Your task to perform on an android device: Open calendar and show me the first week of next month Image 0: 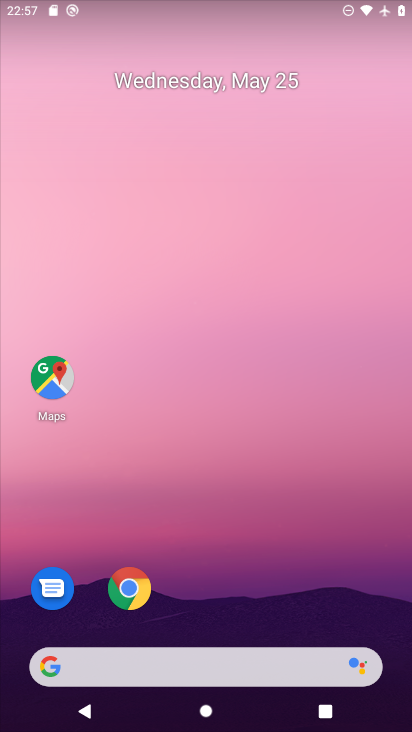
Step 0: drag from (195, 572) to (186, 165)
Your task to perform on an android device: Open calendar and show me the first week of next month Image 1: 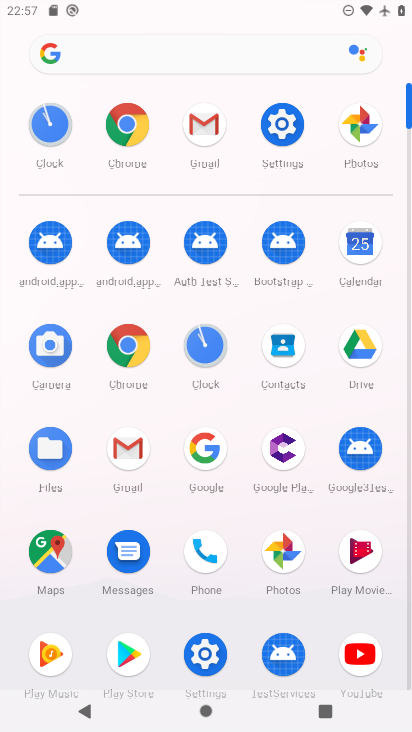
Step 1: click (352, 249)
Your task to perform on an android device: Open calendar and show me the first week of next month Image 2: 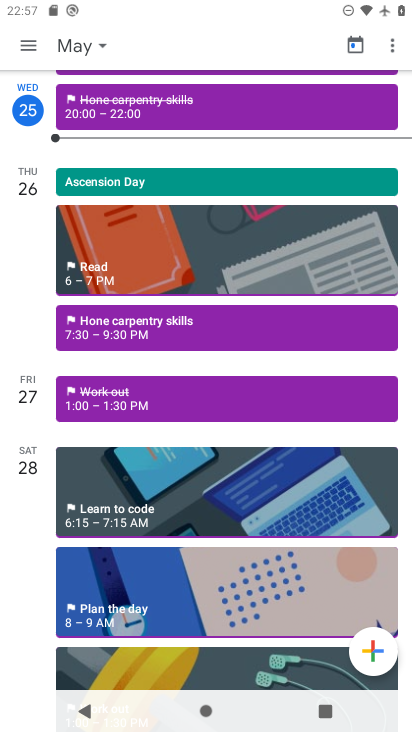
Step 2: click (99, 52)
Your task to perform on an android device: Open calendar and show me the first week of next month Image 3: 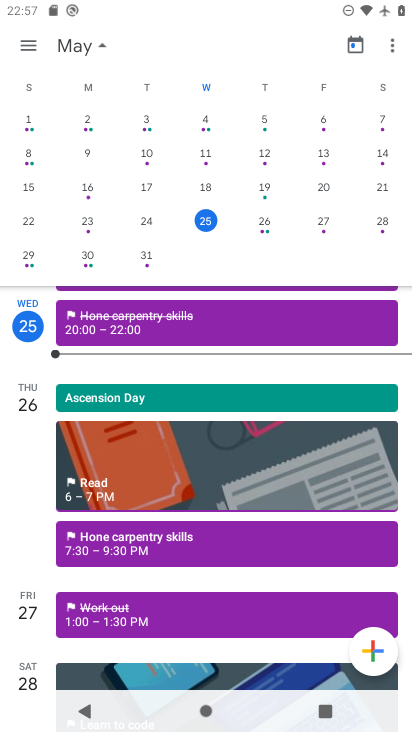
Step 3: drag from (398, 213) to (58, 134)
Your task to perform on an android device: Open calendar and show me the first week of next month Image 4: 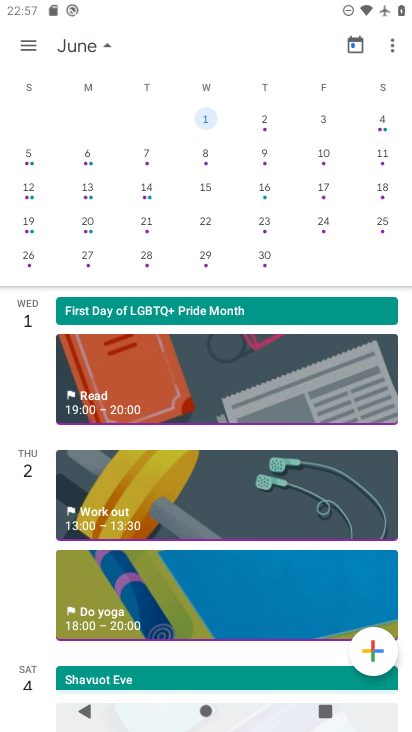
Step 4: click (19, 159)
Your task to perform on an android device: Open calendar and show me the first week of next month Image 5: 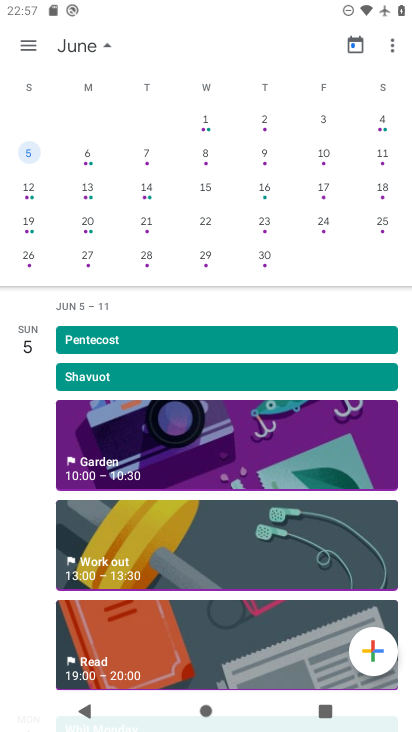
Step 5: click (25, 53)
Your task to perform on an android device: Open calendar and show me the first week of next month Image 6: 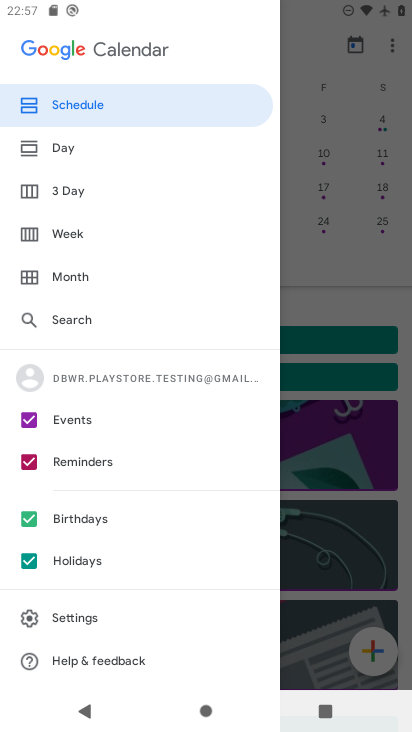
Step 6: click (74, 227)
Your task to perform on an android device: Open calendar and show me the first week of next month Image 7: 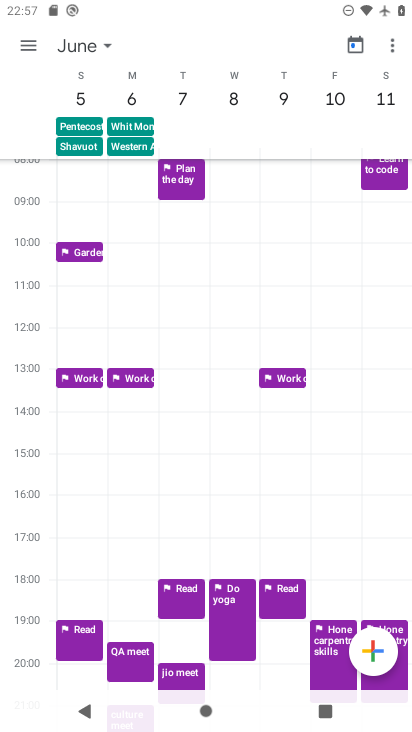
Step 7: task complete